Your task to perform on an android device: Search for hotels in Las Vegas Image 0: 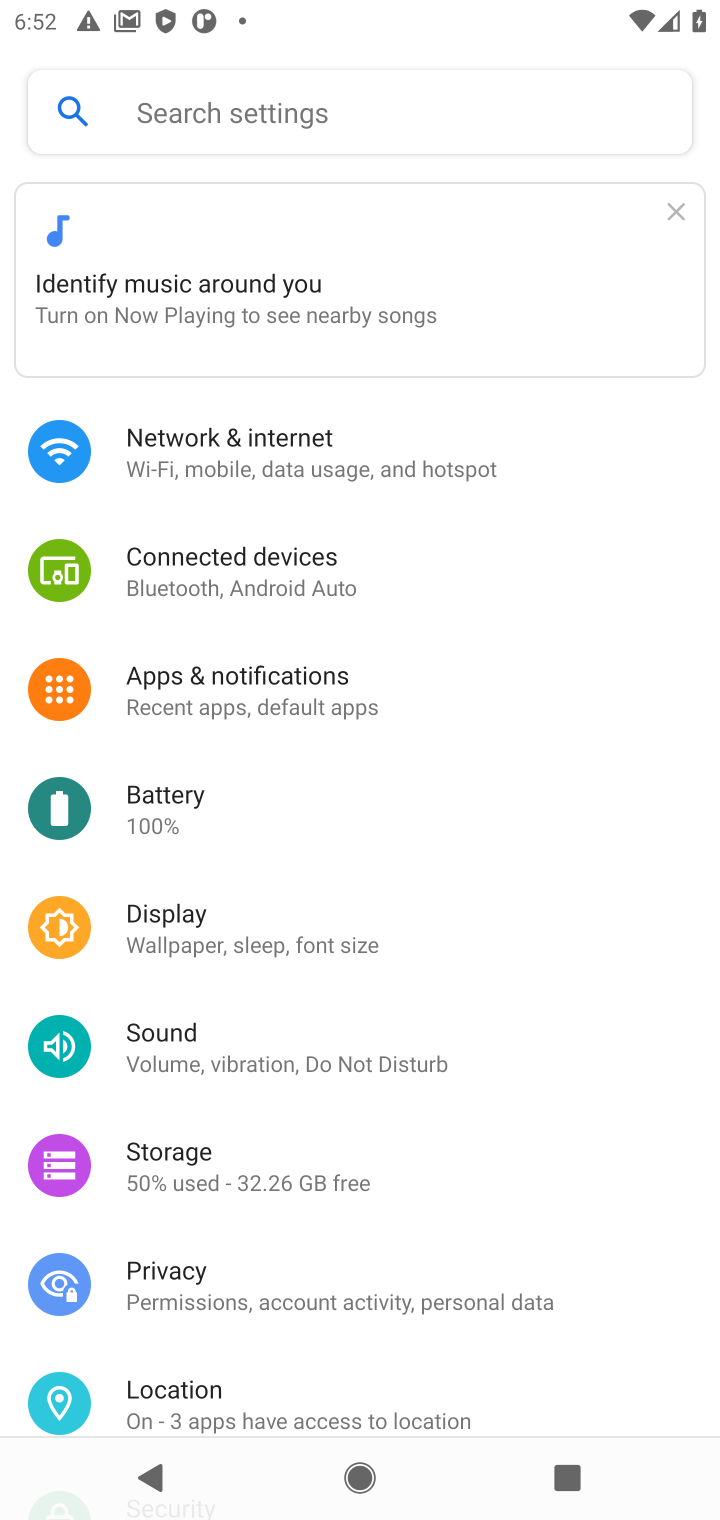
Step 0: press home button
Your task to perform on an android device: Search for hotels in Las Vegas Image 1: 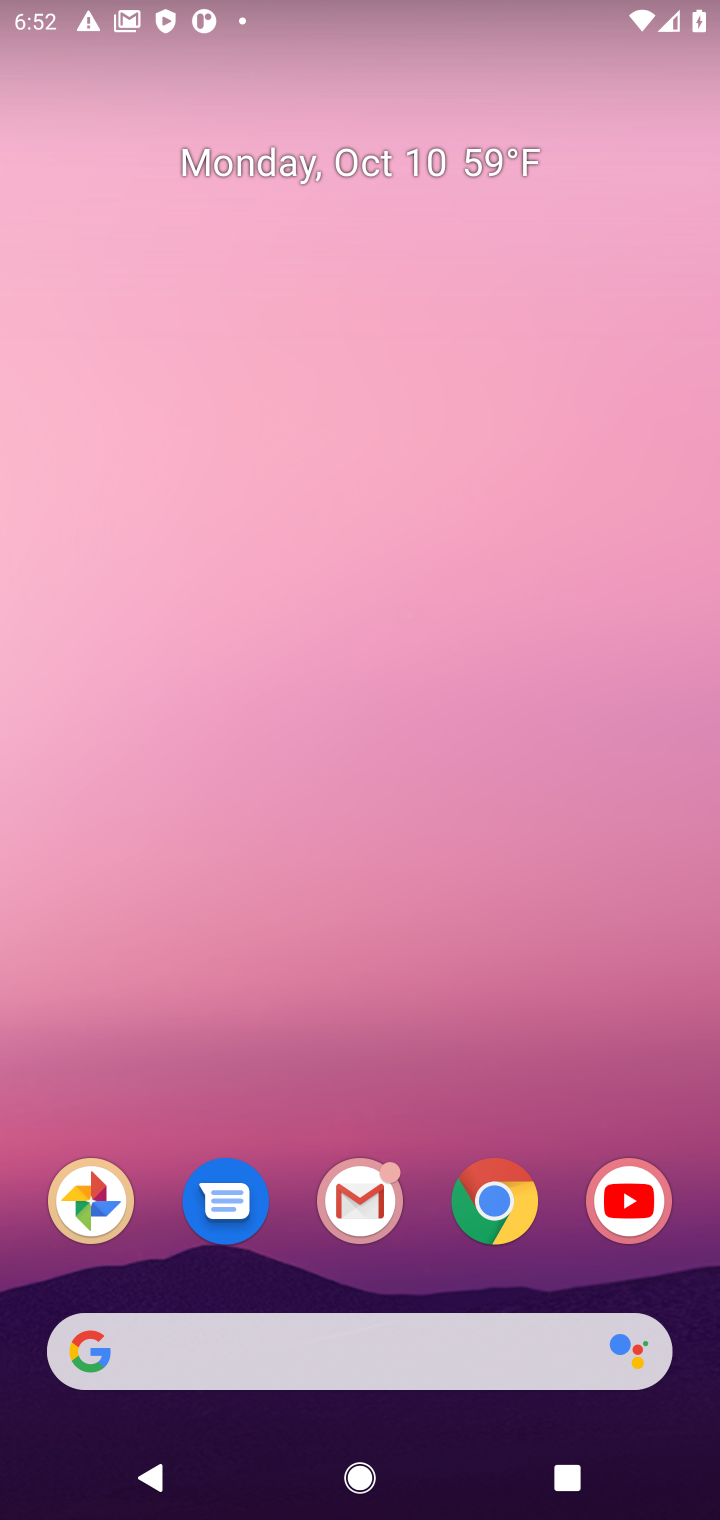
Step 1: drag from (237, 803) to (221, 267)
Your task to perform on an android device: Search for hotels in Las Vegas Image 2: 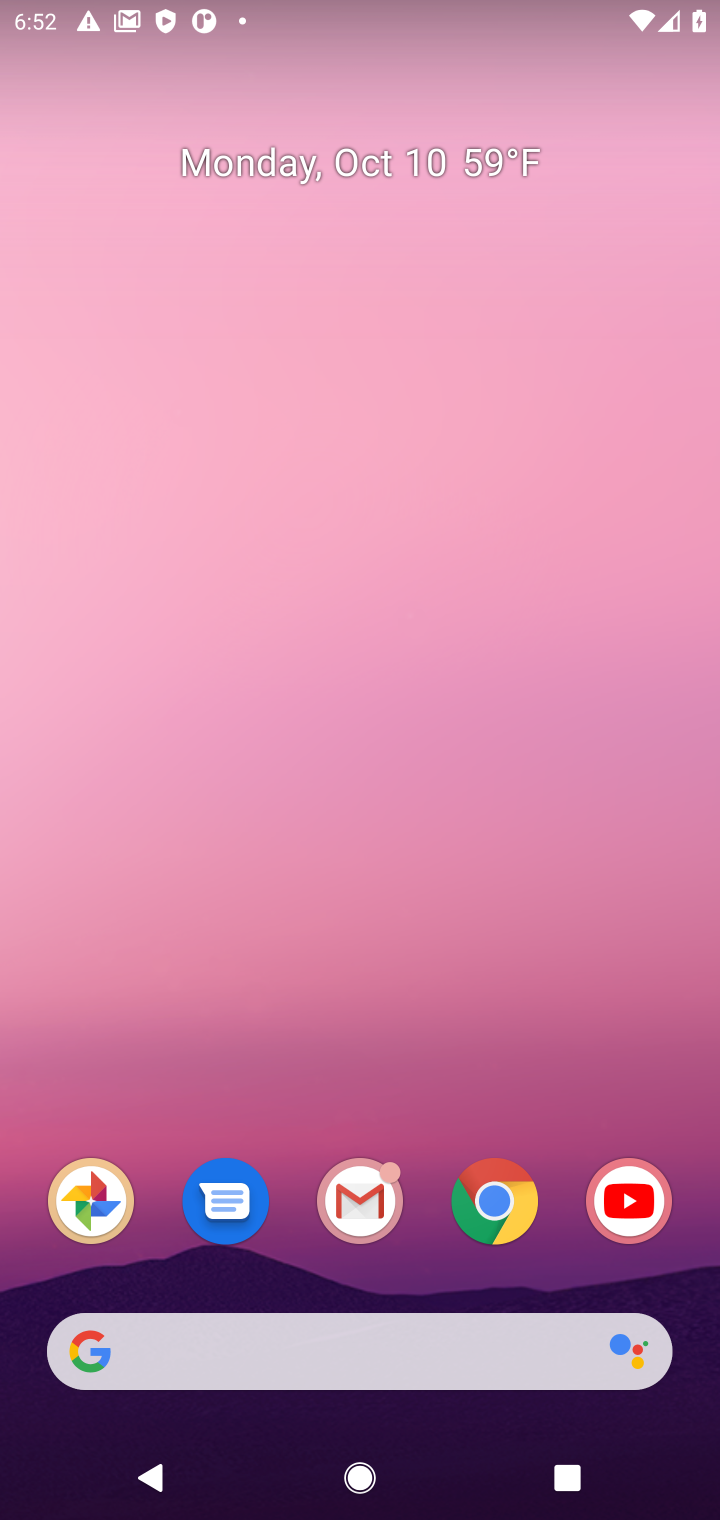
Step 2: drag from (335, 885) to (291, 291)
Your task to perform on an android device: Search for hotels in Las Vegas Image 3: 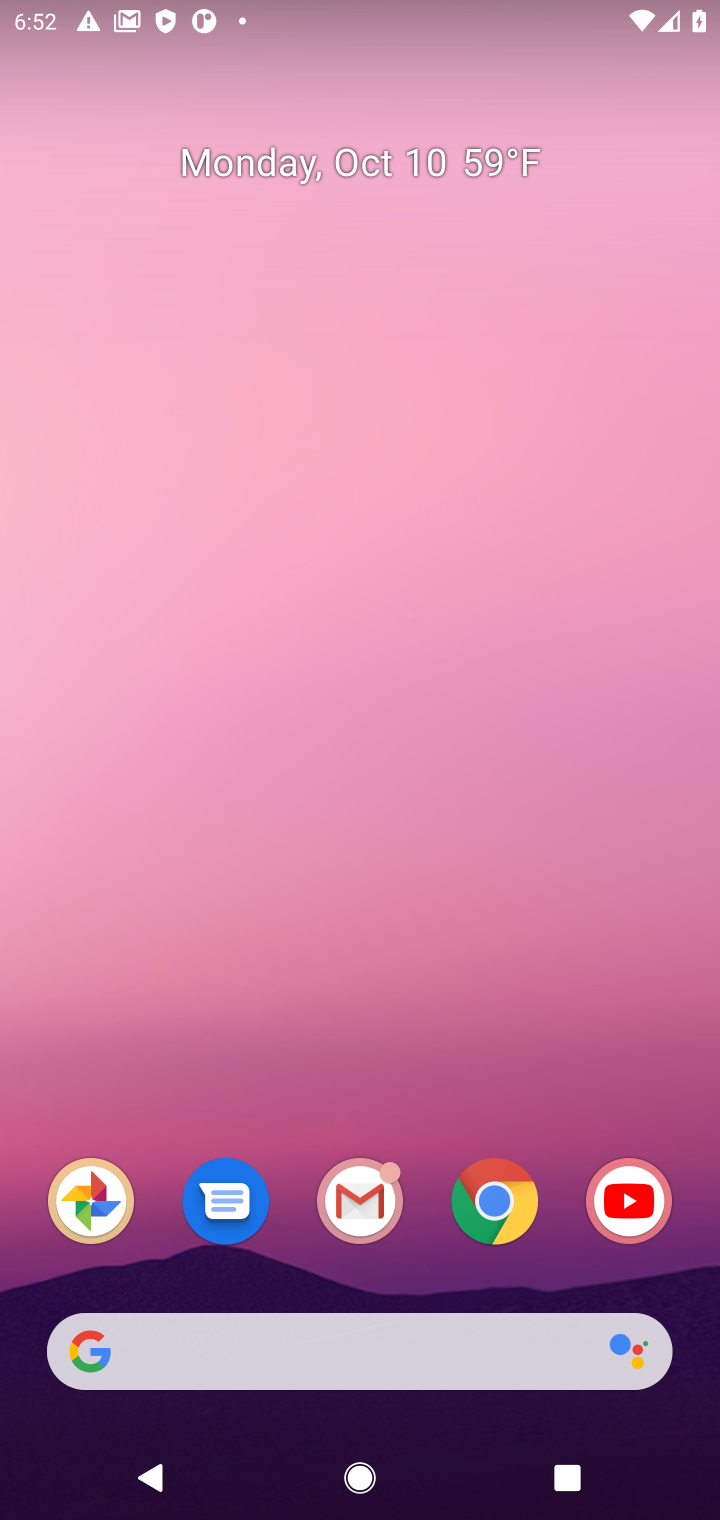
Step 3: drag from (430, 1326) to (488, 114)
Your task to perform on an android device: Search for hotels in Las Vegas Image 4: 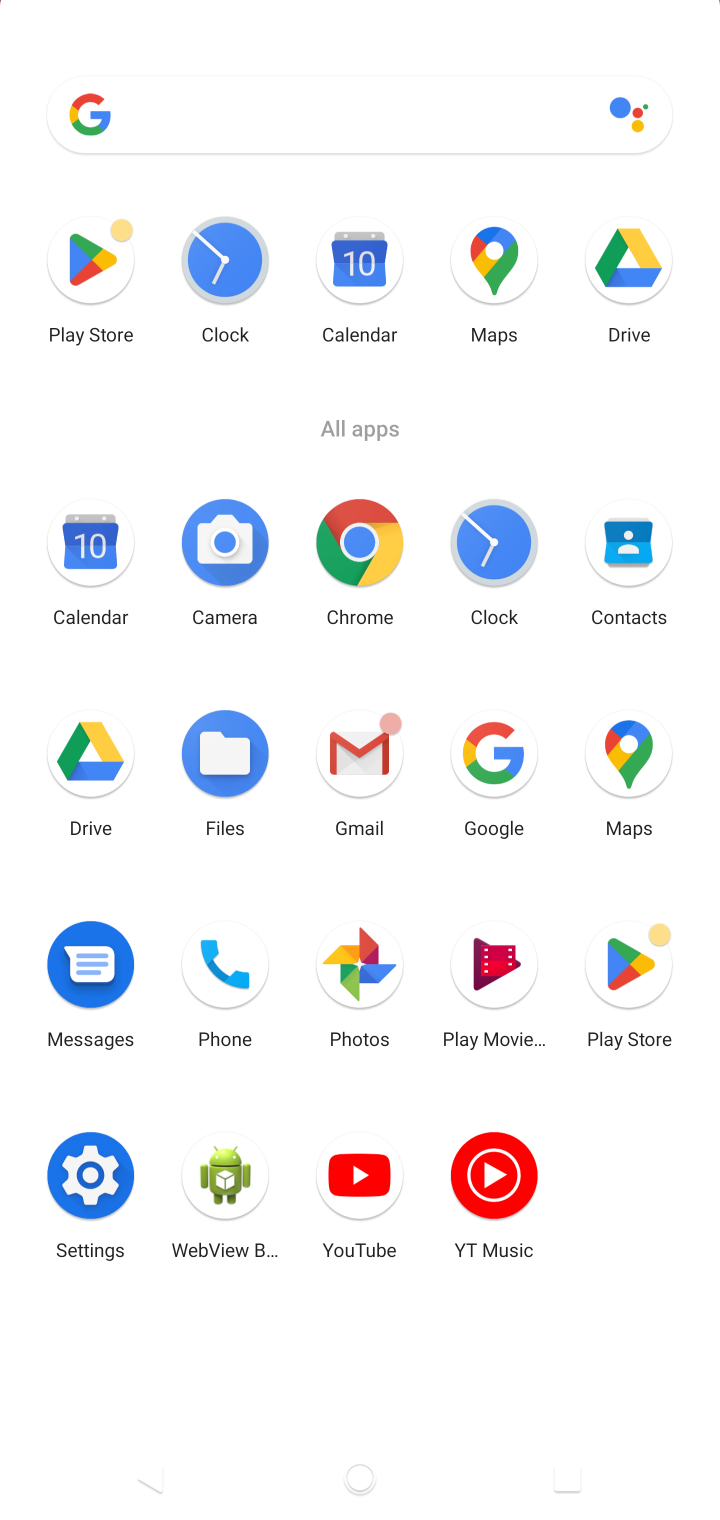
Step 4: click (472, 734)
Your task to perform on an android device: Search for hotels in Las Vegas Image 5: 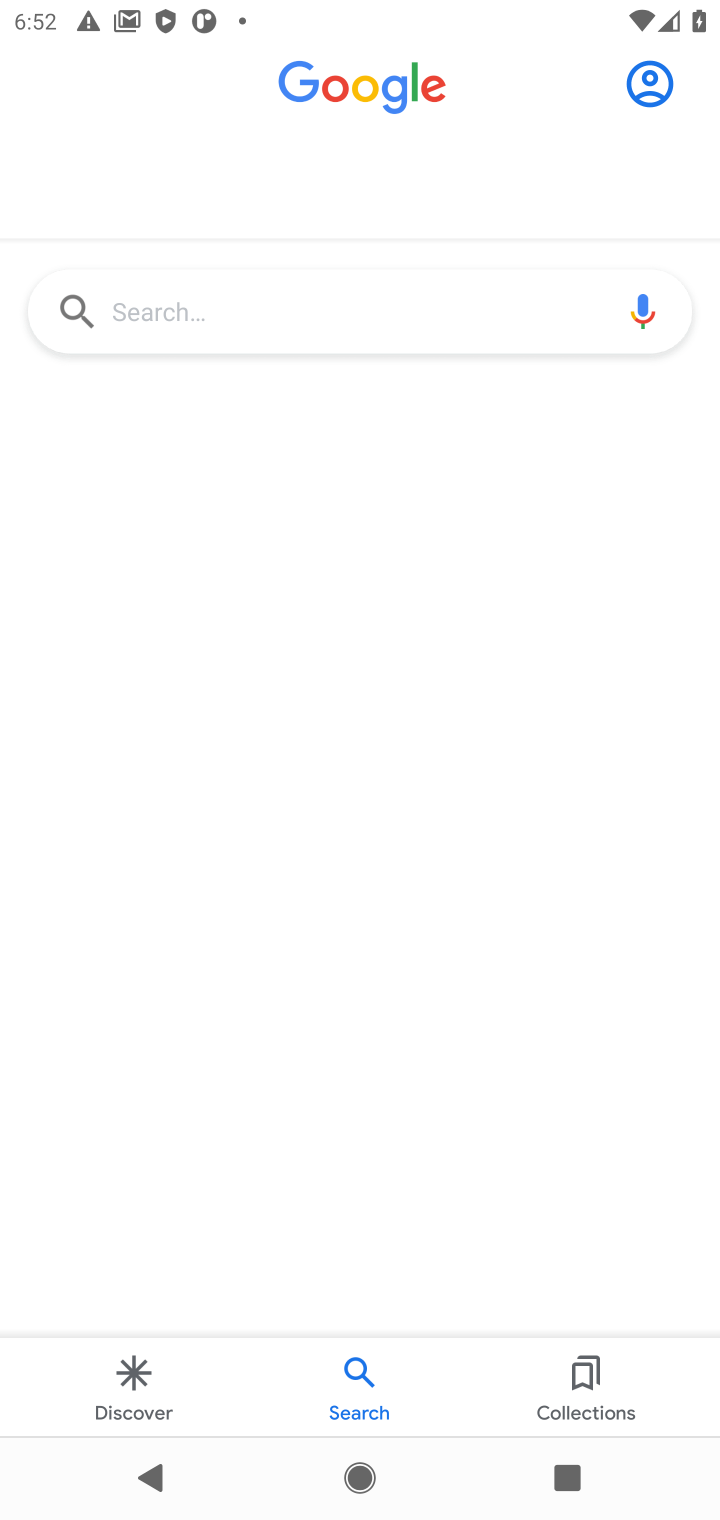
Step 5: click (208, 320)
Your task to perform on an android device: Search for hotels in Las Vegas Image 6: 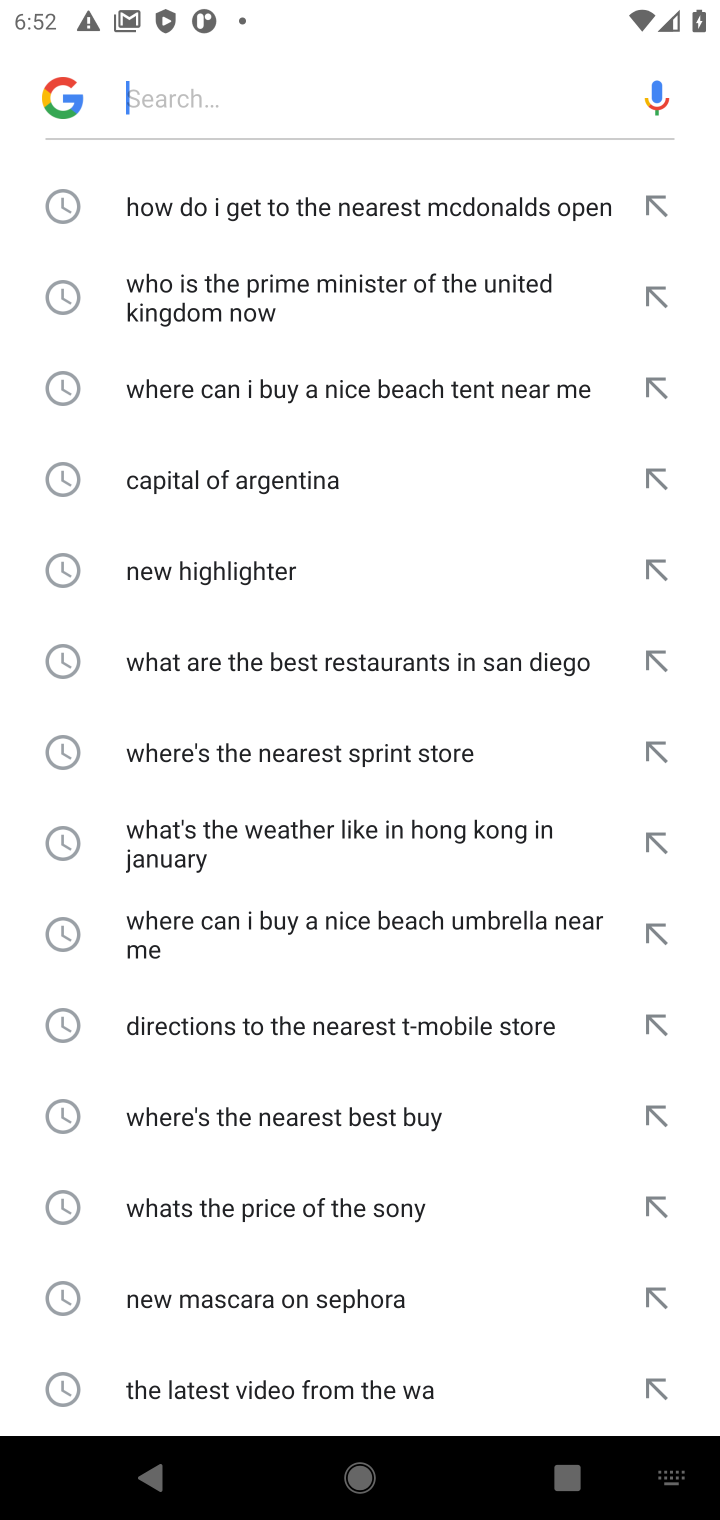
Step 6: type "Search for hotels in Las Vegas"
Your task to perform on an android device: Search for hotels in Las Vegas Image 7: 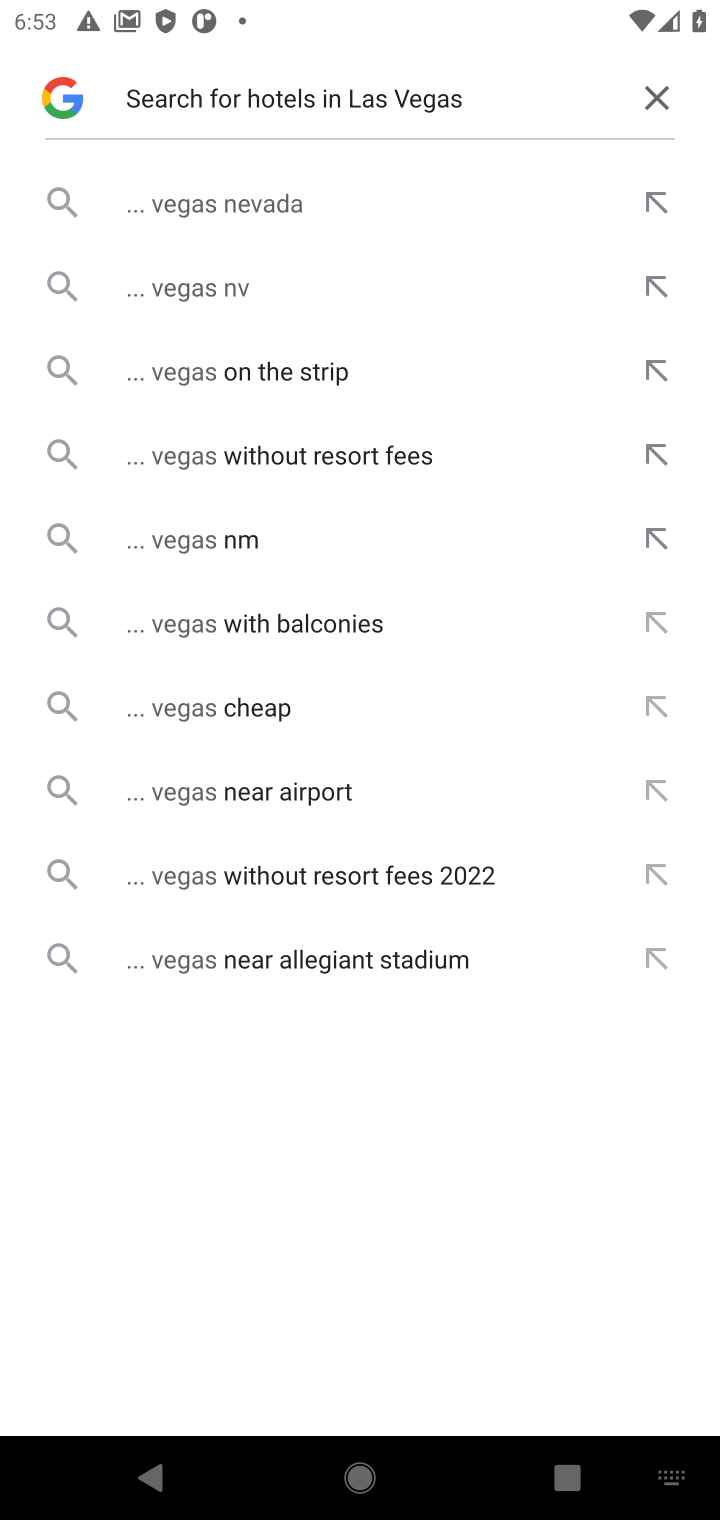
Step 7: click (182, 197)
Your task to perform on an android device: Search for hotels in Las Vegas Image 8: 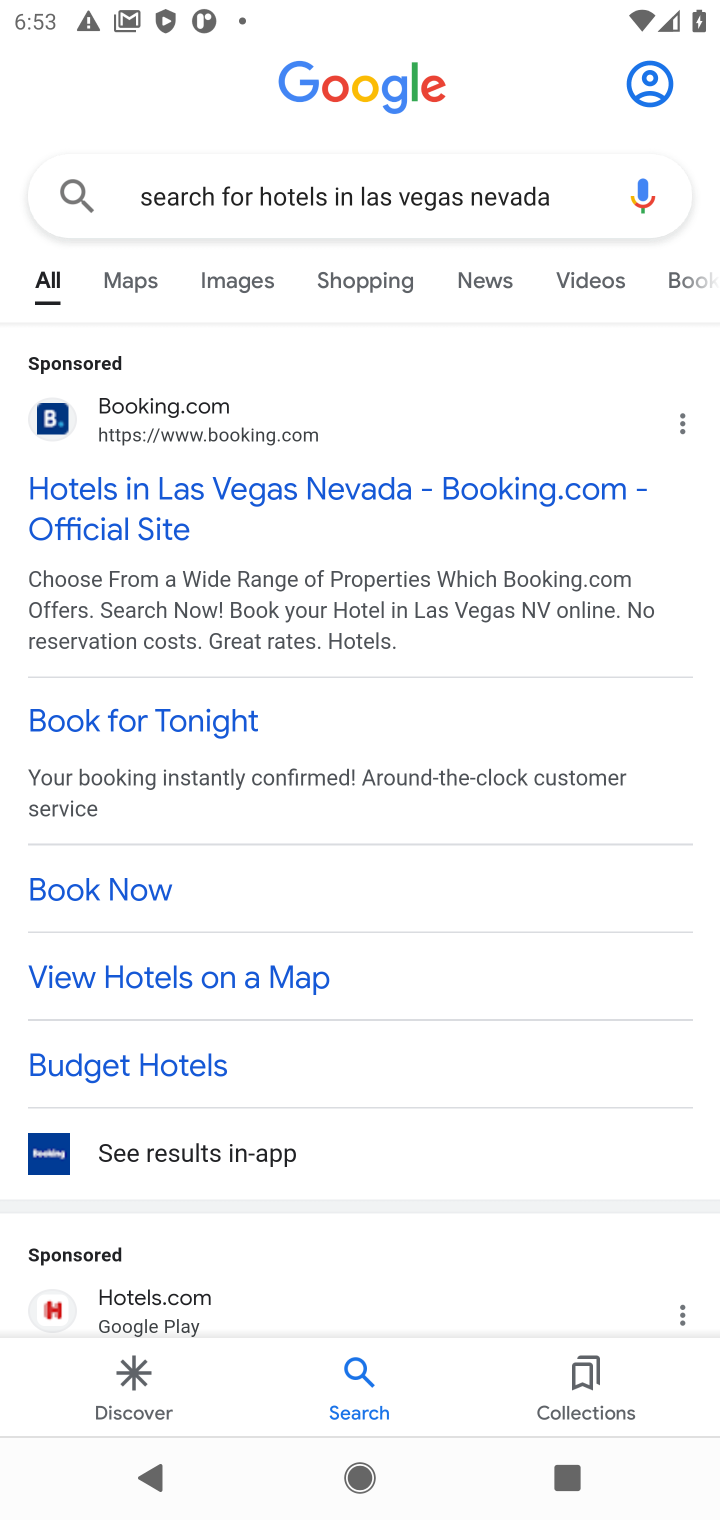
Step 8: click (230, 493)
Your task to perform on an android device: Search for hotels in Las Vegas Image 9: 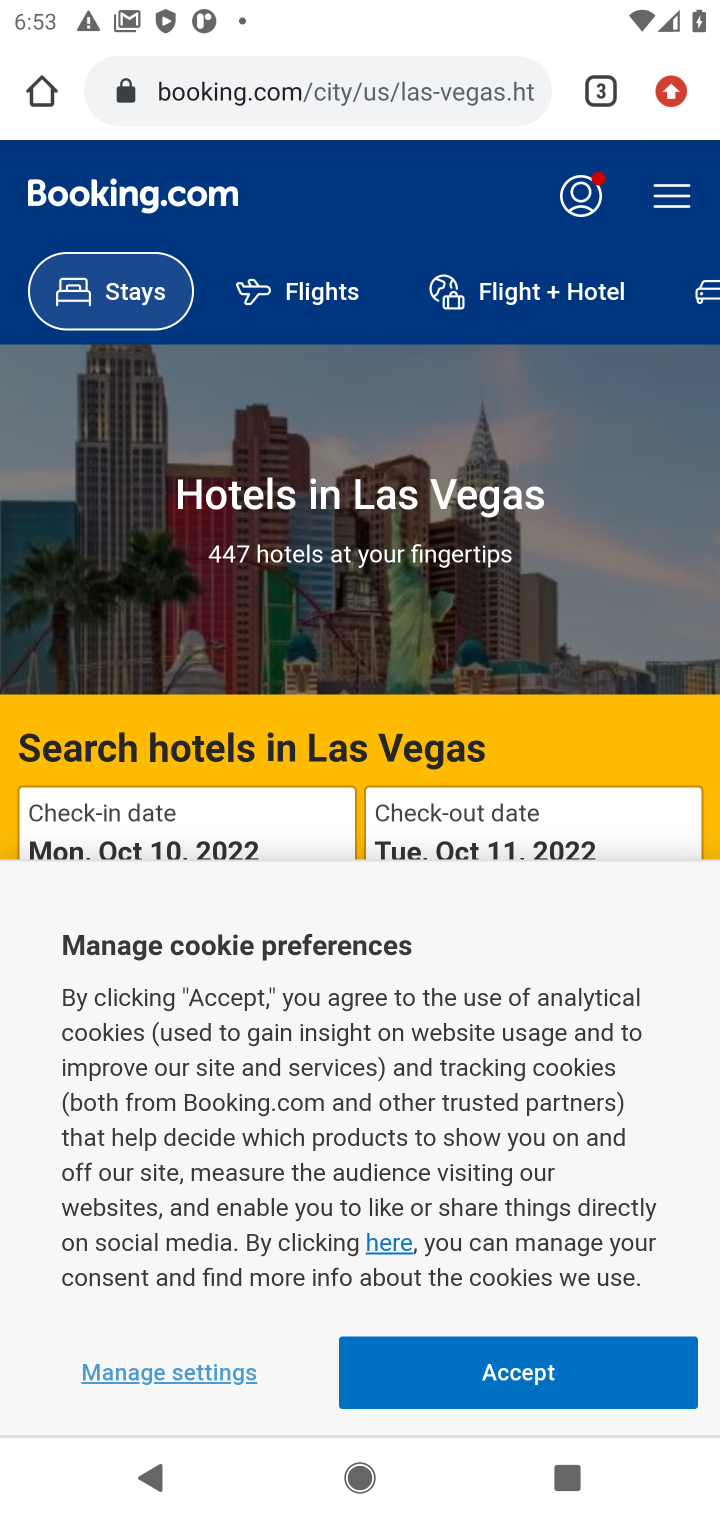
Step 9: task complete